Your task to perform on an android device: toggle priority inbox in the gmail app Image 0: 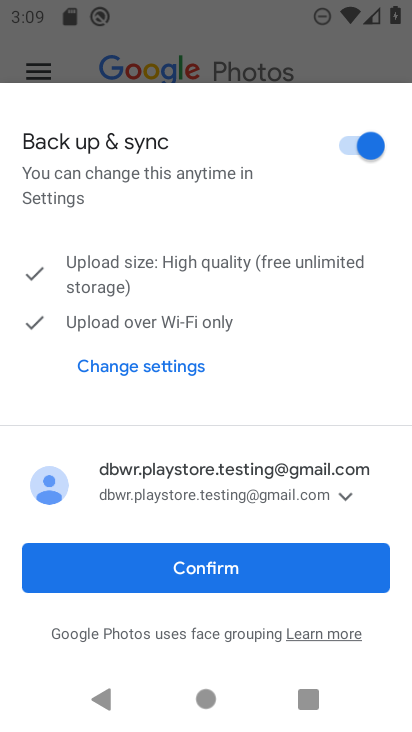
Step 0: press home button
Your task to perform on an android device: toggle priority inbox in the gmail app Image 1: 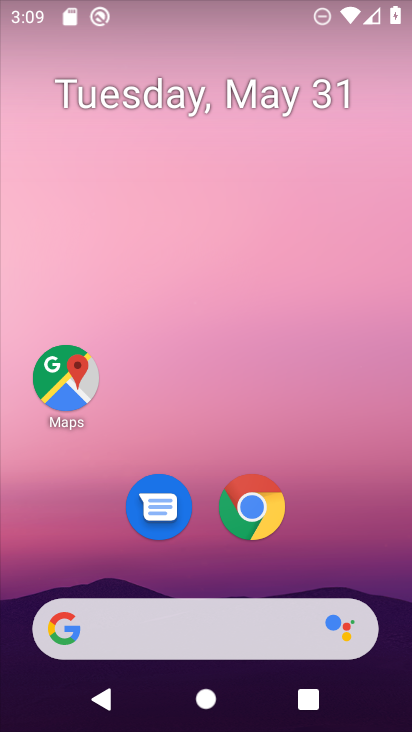
Step 1: drag from (154, 727) to (145, 32)
Your task to perform on an android device: toggle priority inbox in the gmail app Image 2: 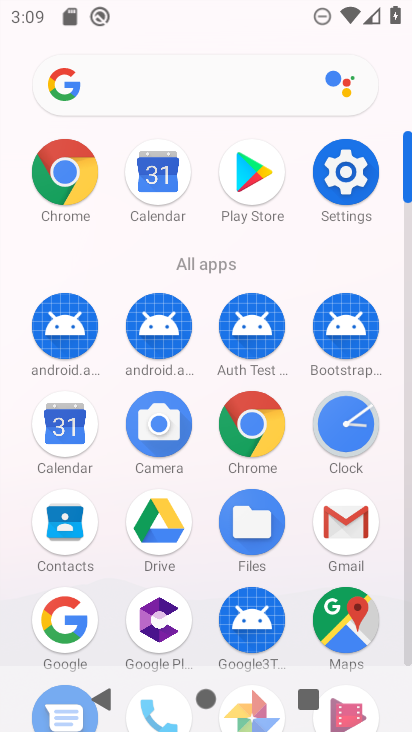
Step 2: click (330, 533)
Your task to perform on an android device: toggle priority inbox in the gmail app Image 3: 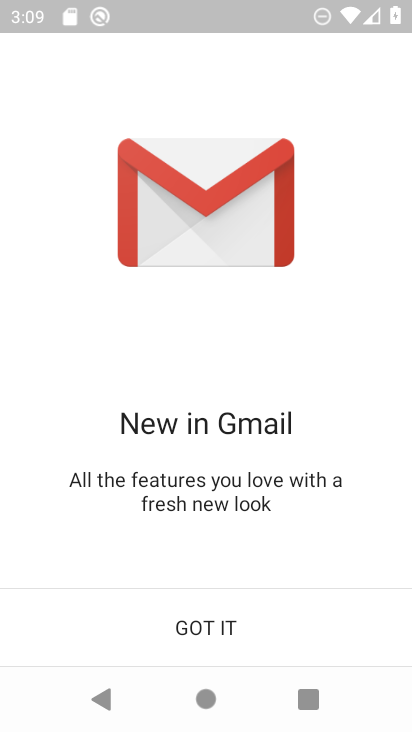
Step 3: click (229, 651)
Your task to perform on an android device: toggle priority inbox in the gmail app Image 4: 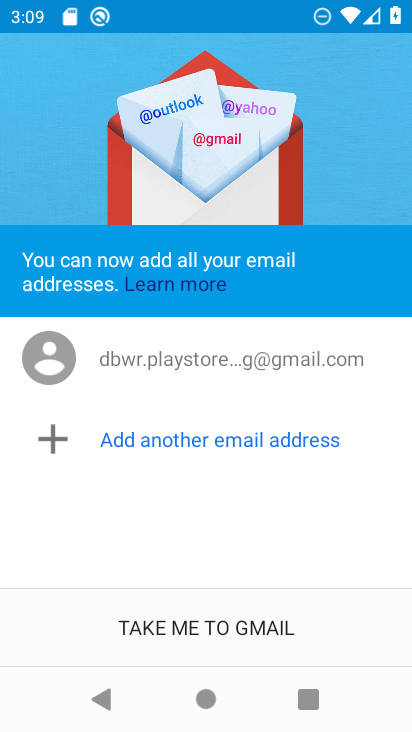
Step 4: click (229, 648)
Your task to perform on an android device: toggle priority inbox in the gmail app Image 5: 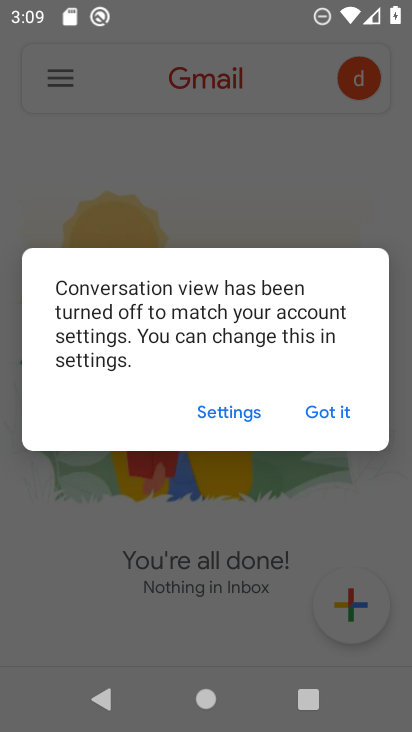
Step 5: click (334, 413)
Your task to perform on an android device: toggle priority inbox in the gmail app Image 6: 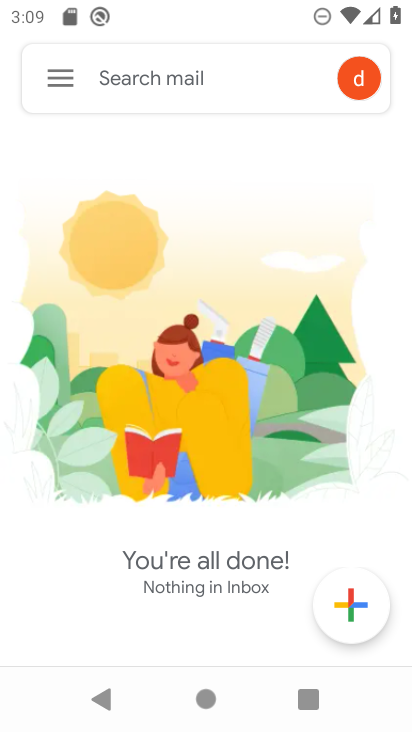
Step 6: click (53, 84)
Your task to perform on an android device: toggle priority inbox in the gmail app Image 7: 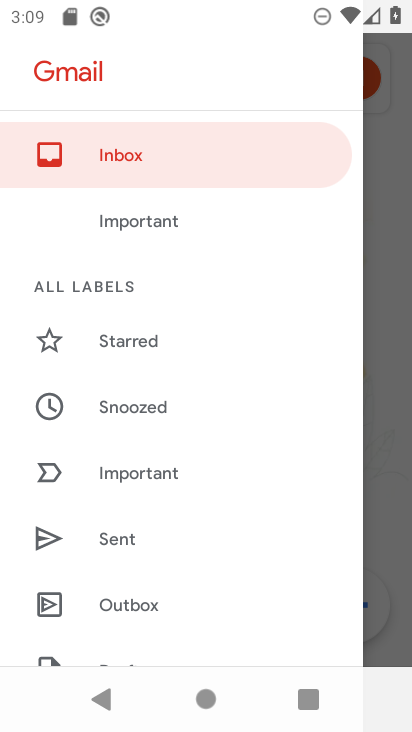
Step 7: drag from (183, 625) to (171, 166)
Your task to perform on an android device: toggle priority inbox in the gmail app Image 8: 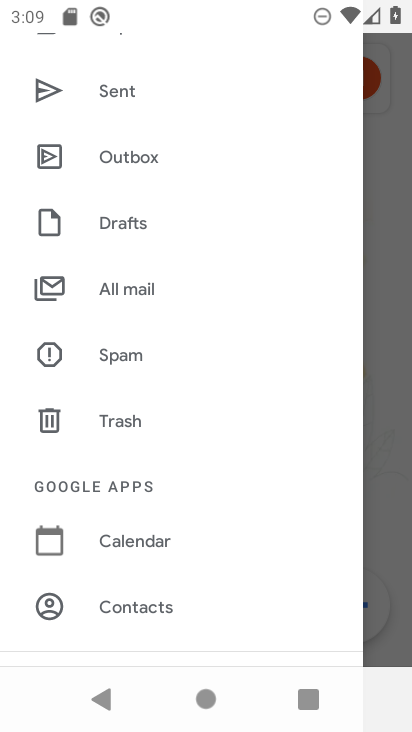
Step 8: drag from (254, 615) to (322, 181)
Your task to perform on an android device: toggle priority inbox in the gmail app Image 9: 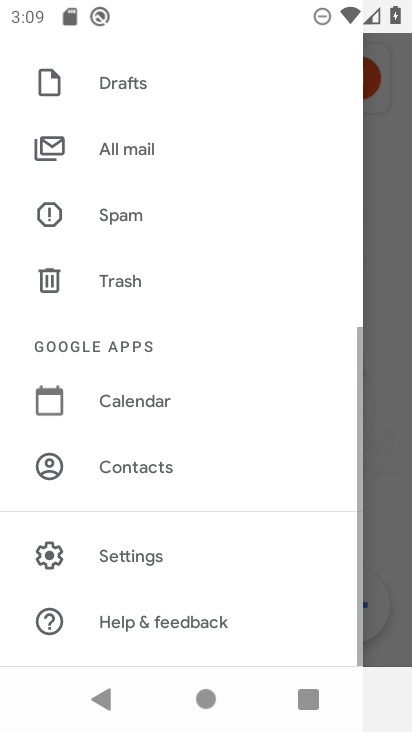
Step 9: click (122, 555)
Your task to perform on an android device: toggle priority inbox in the gmail app Image 10: 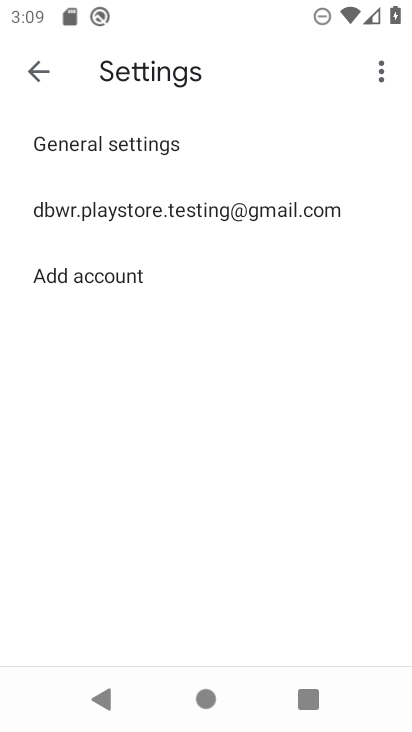
Step 10: click (175, 212)
Your task to perform on an android device: toggle priority inbox in the gmail app Image 11: 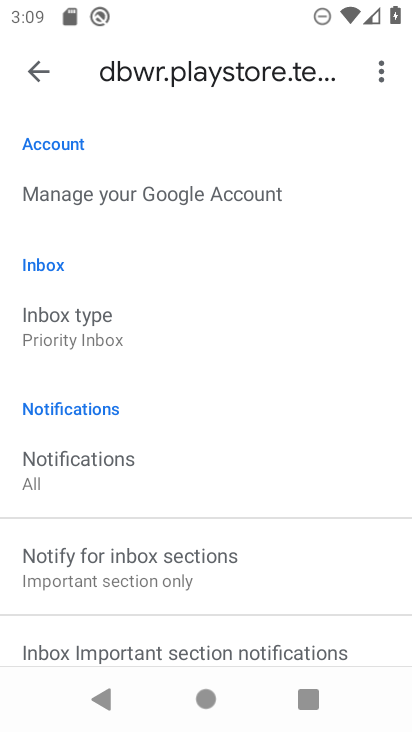
Step 11: click (117, 336)
Your task to perform on an android device: toggle priority inbox in the gmail app Image 12: 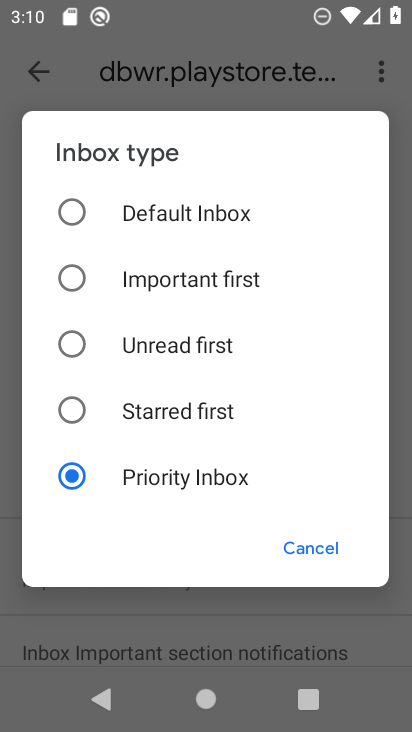
Step 12: task complete